Your task to perform on an android device: Check out the best rated electric trimmers on Lowe's Image 0: 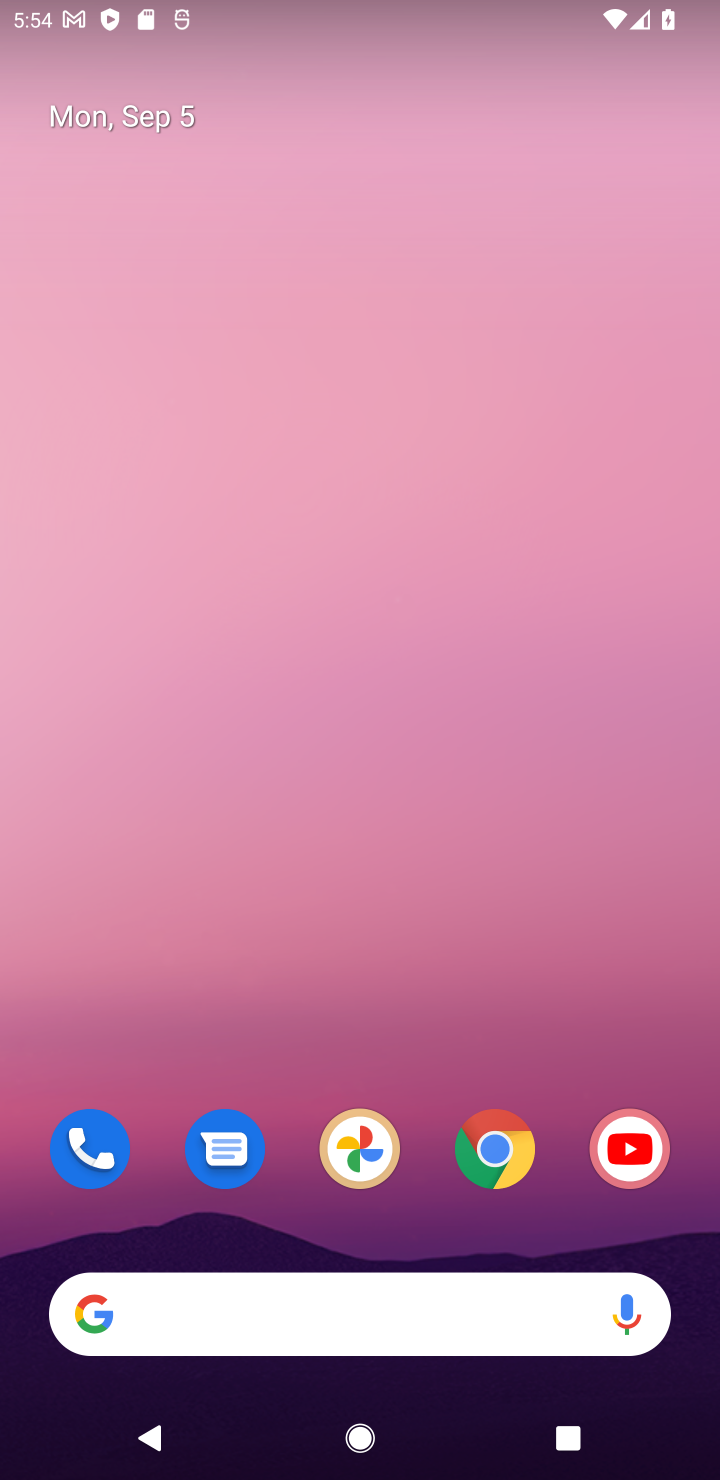
Step 0: click (495, 1154)
Your task to perform on an android device: Check out the best rated electric trimmers on Lowe's Image 1: 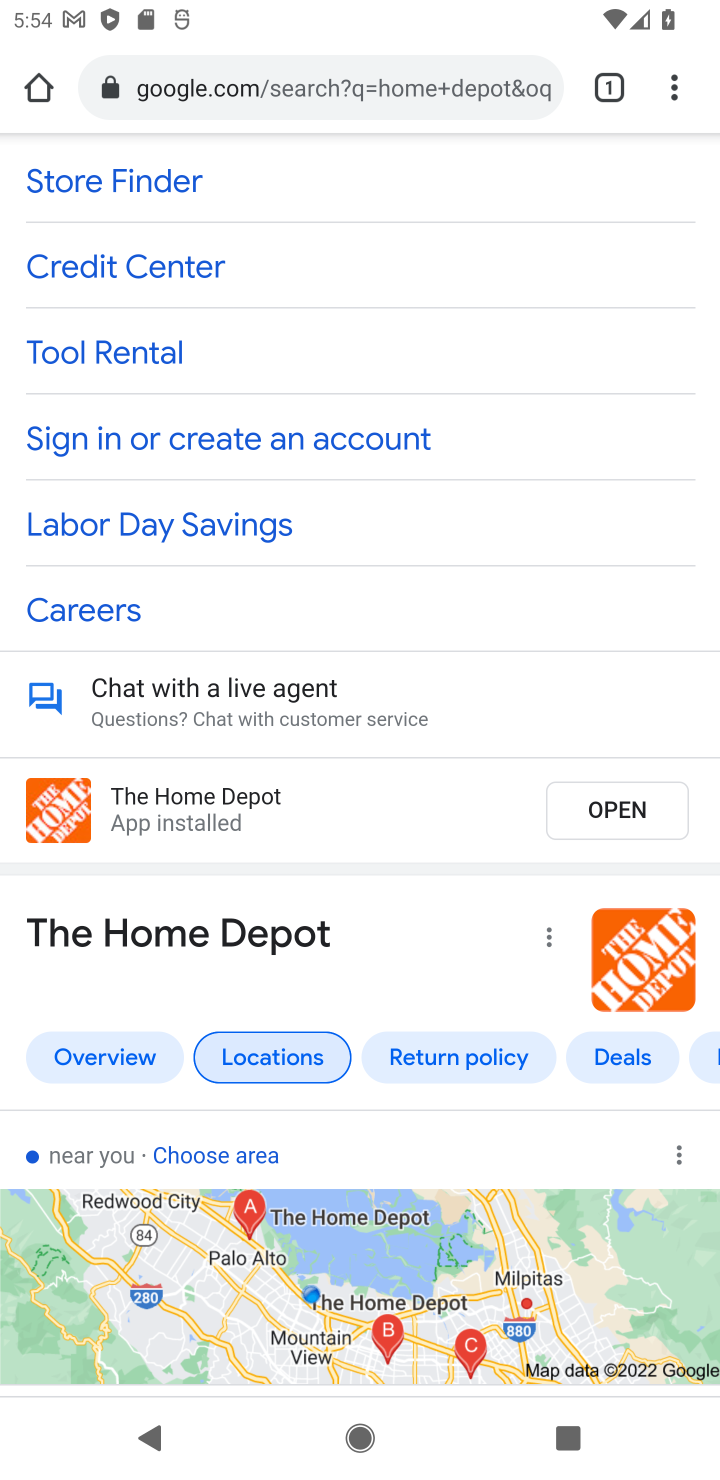
Step 1: click (365, 53)
Your task to perform on an android device: Check out the best rated electric trimmers on Lowe's Image 2: 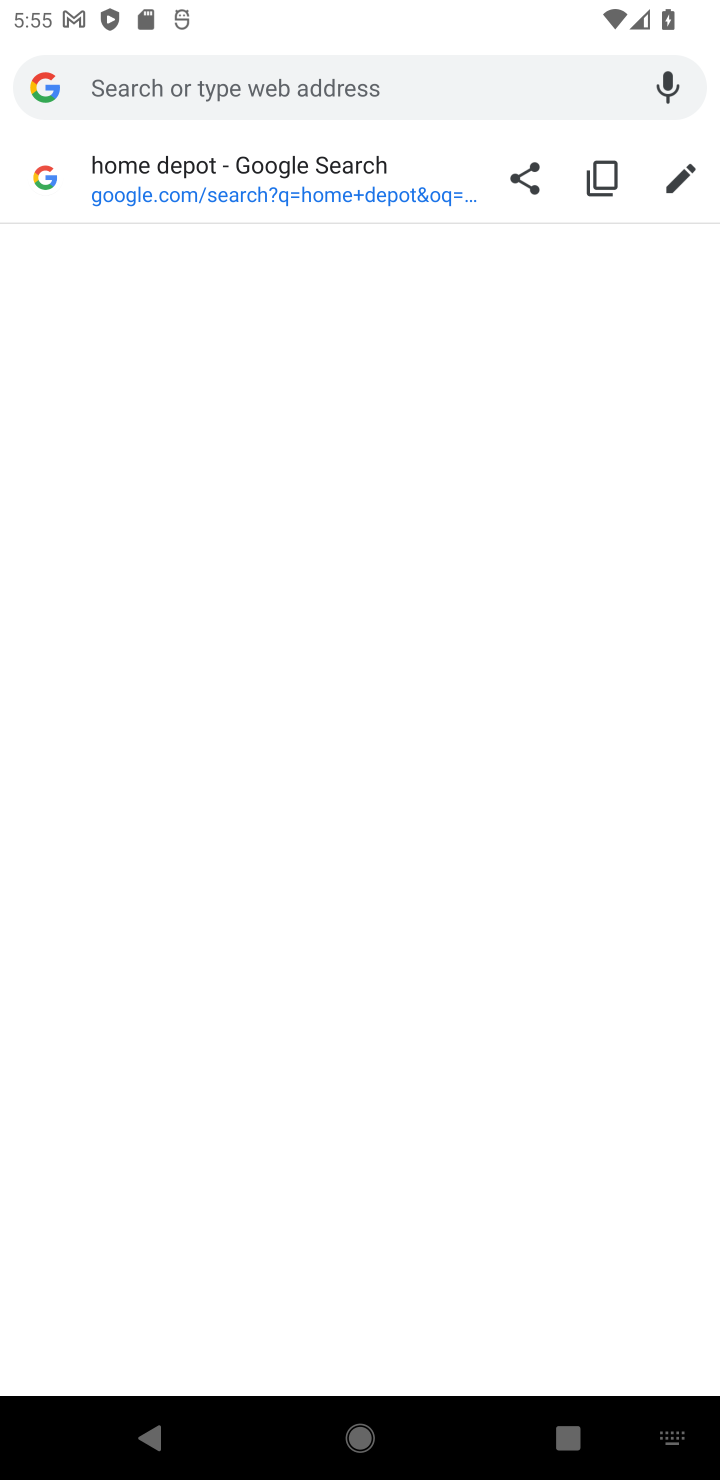
Step 2: type " Lowe's"
Your task to perform on an android device: Check out the best rated electric trimmers on Lowe's Image 3: 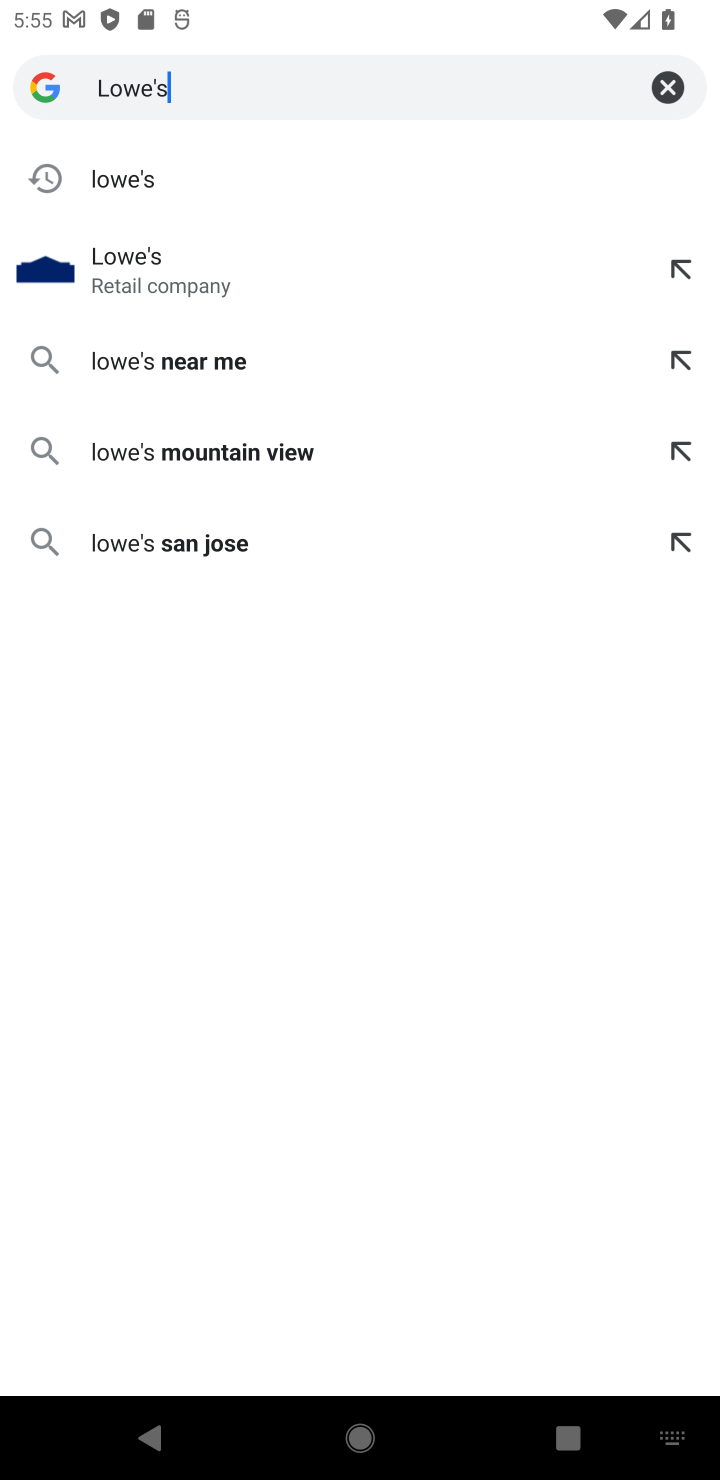
Step 3: click (131, 264)
Your task to perform on an android device: Check out the best rated electric trimmers on Lowe's Image 4: 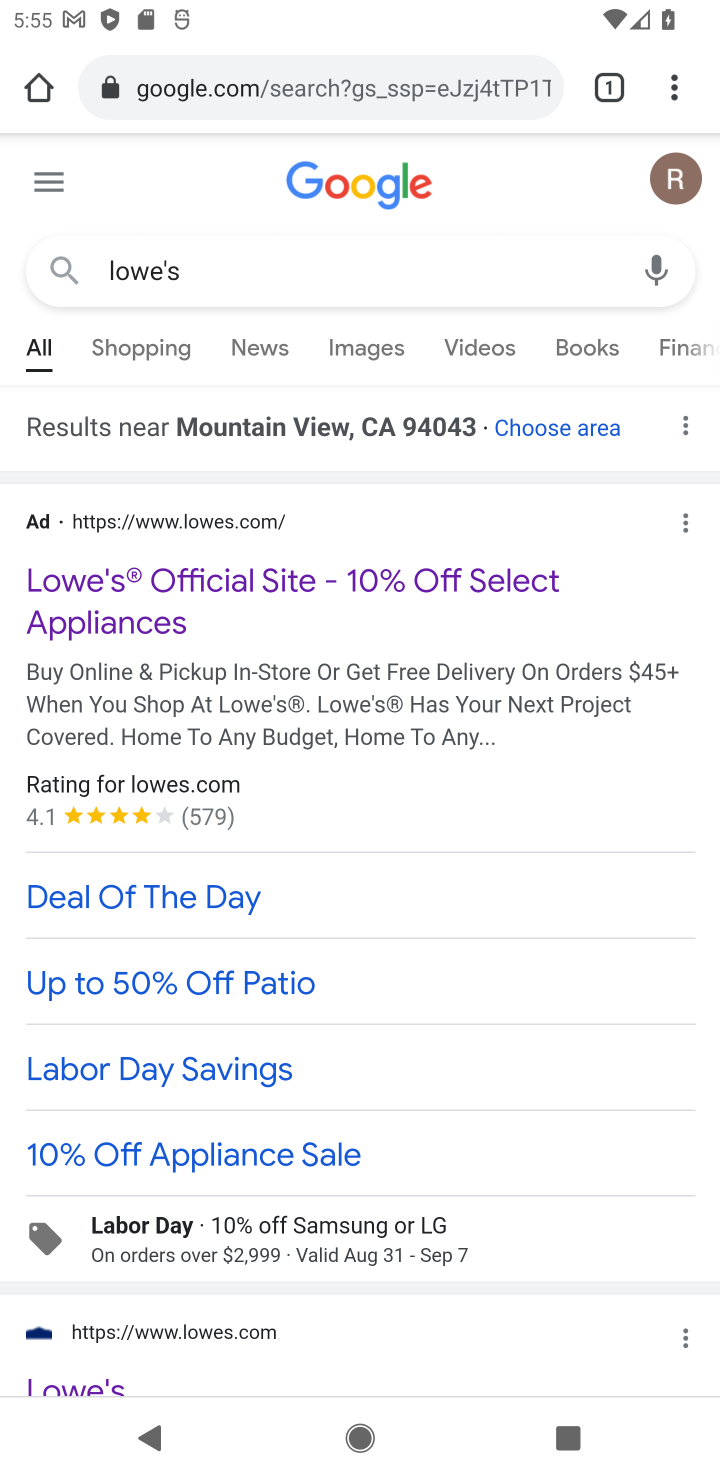
Step 4: click (157, 583)
Your task to perform on an android device: Check out the best rated electric trimmers on Lowe's Image 5: 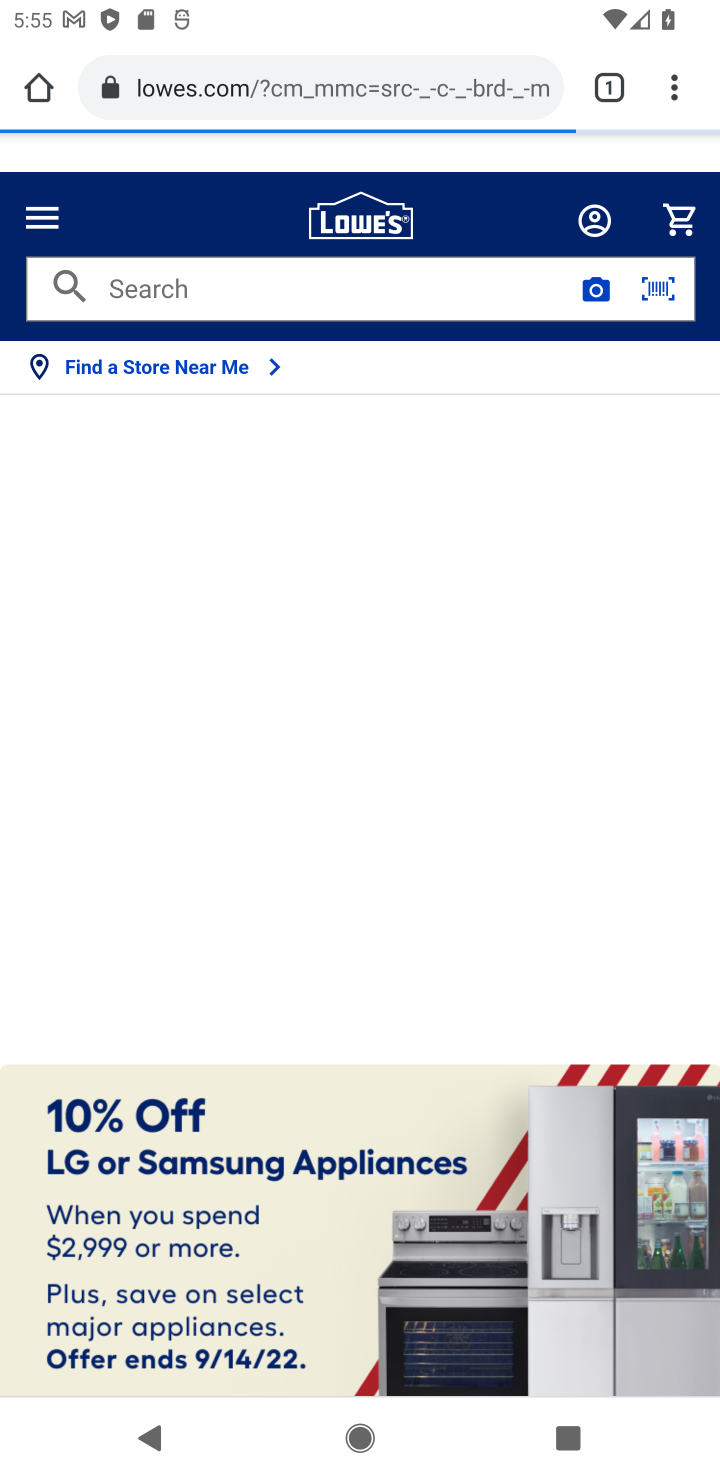
Step 5: click (174, 276)
Your task to perform on an android device: Check out the best rated electric trimmers on Lowe's Image 6: 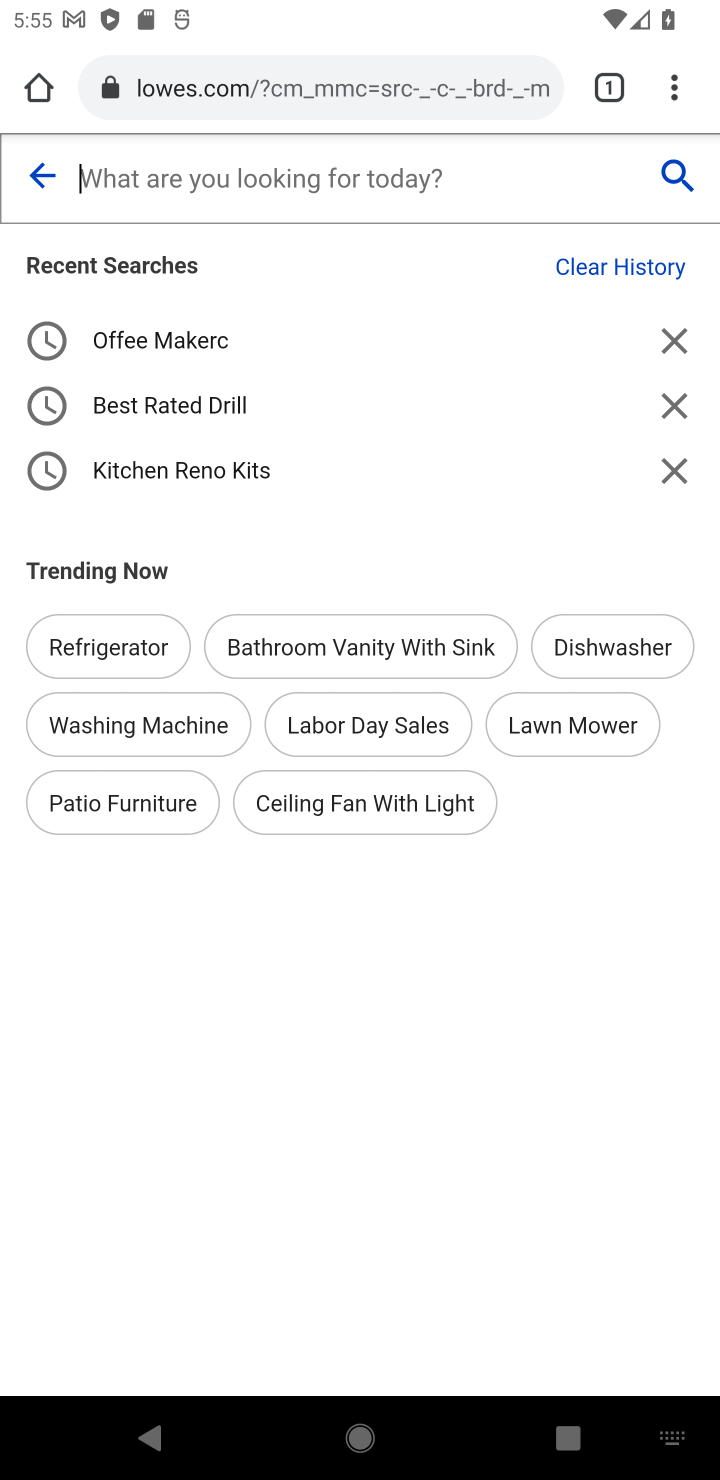
Step 6: type " electric trimmers"
Your task to perform on an android device: Check out the best rated electric trimmers on Lowe's Image 7: 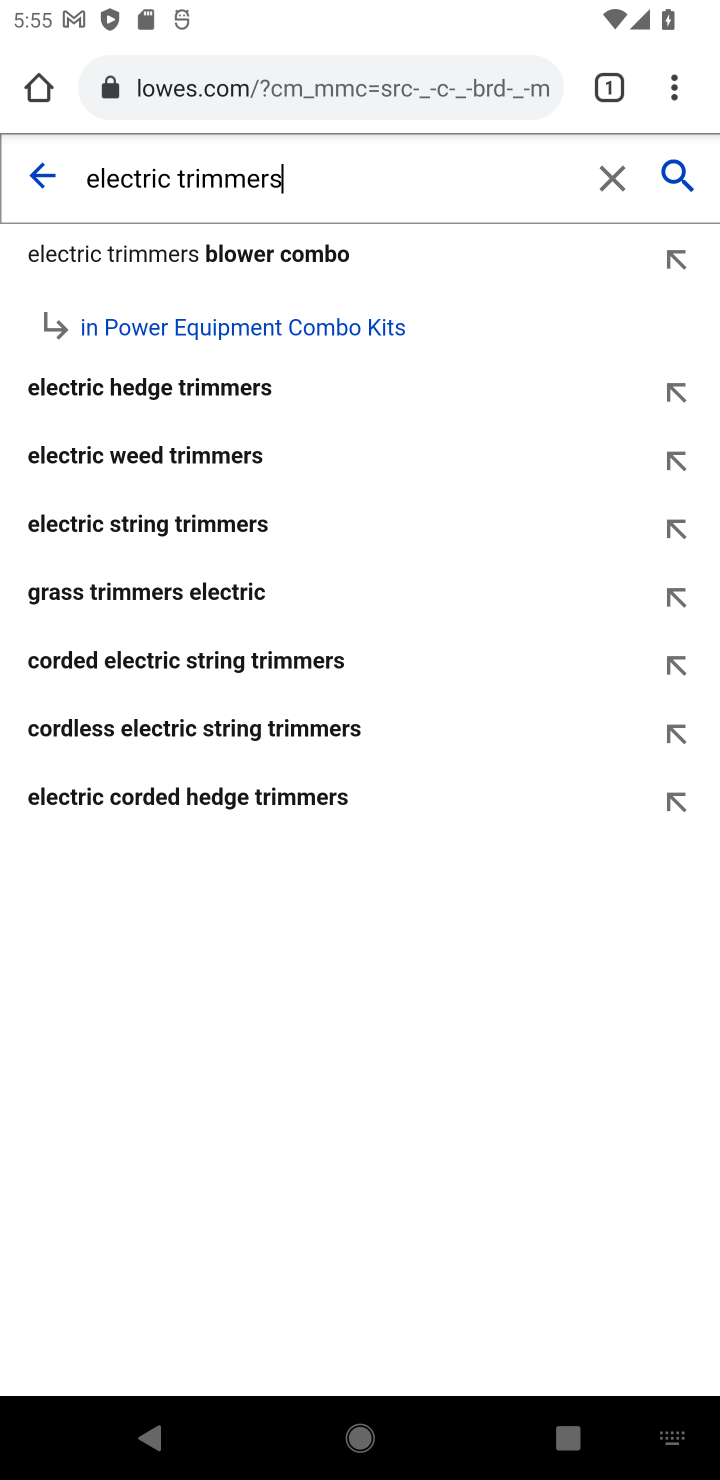
Step 7: click (670, 175)
Your task to perform on an android device: Check out the best rated electric trimmers on Lowe's Image 8: 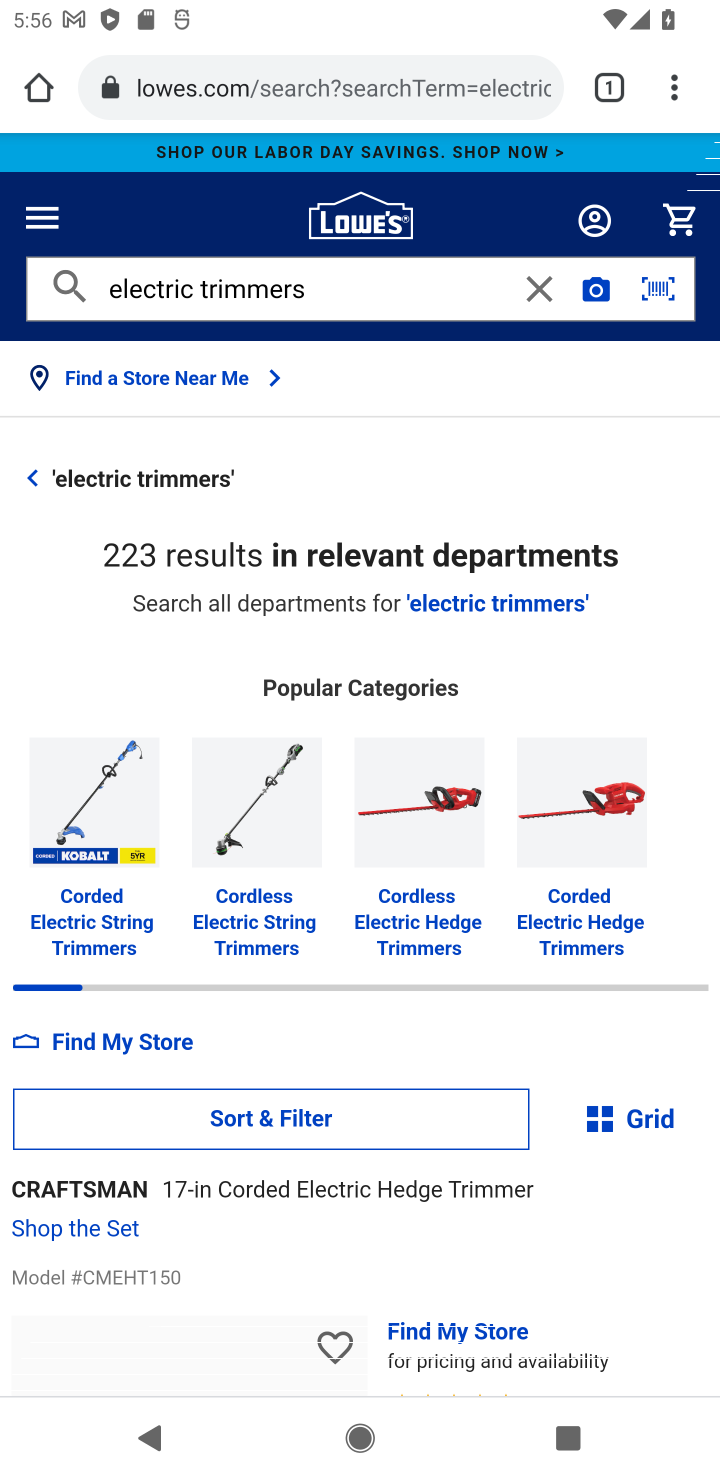
Step 8: click (263, 1118)
Your task to perform on an android device: Check out the best rated electric trimmers on Lowe's Image 9: 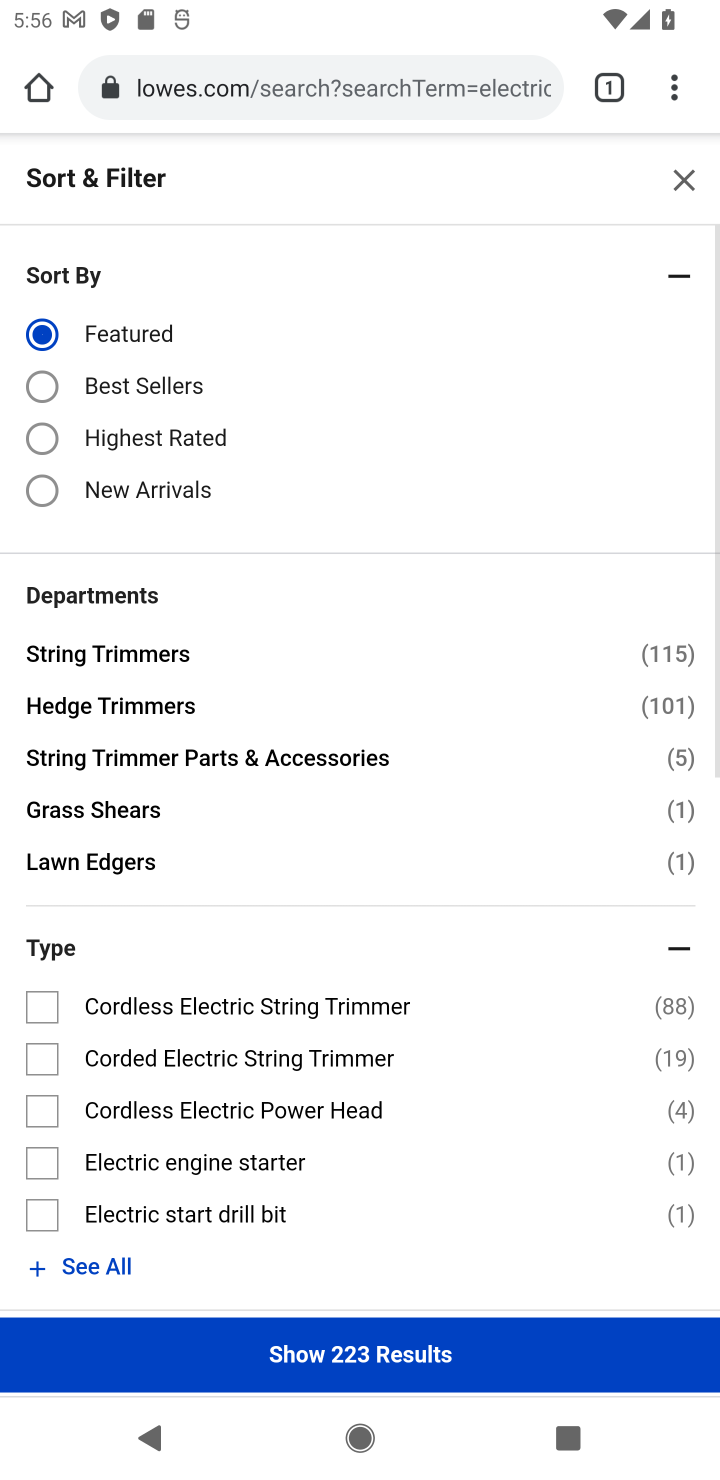
Step 9: click (44, 439)
Your task to perform on an android device: Check out the best rated electric trimmers on Lowe's Image 10: 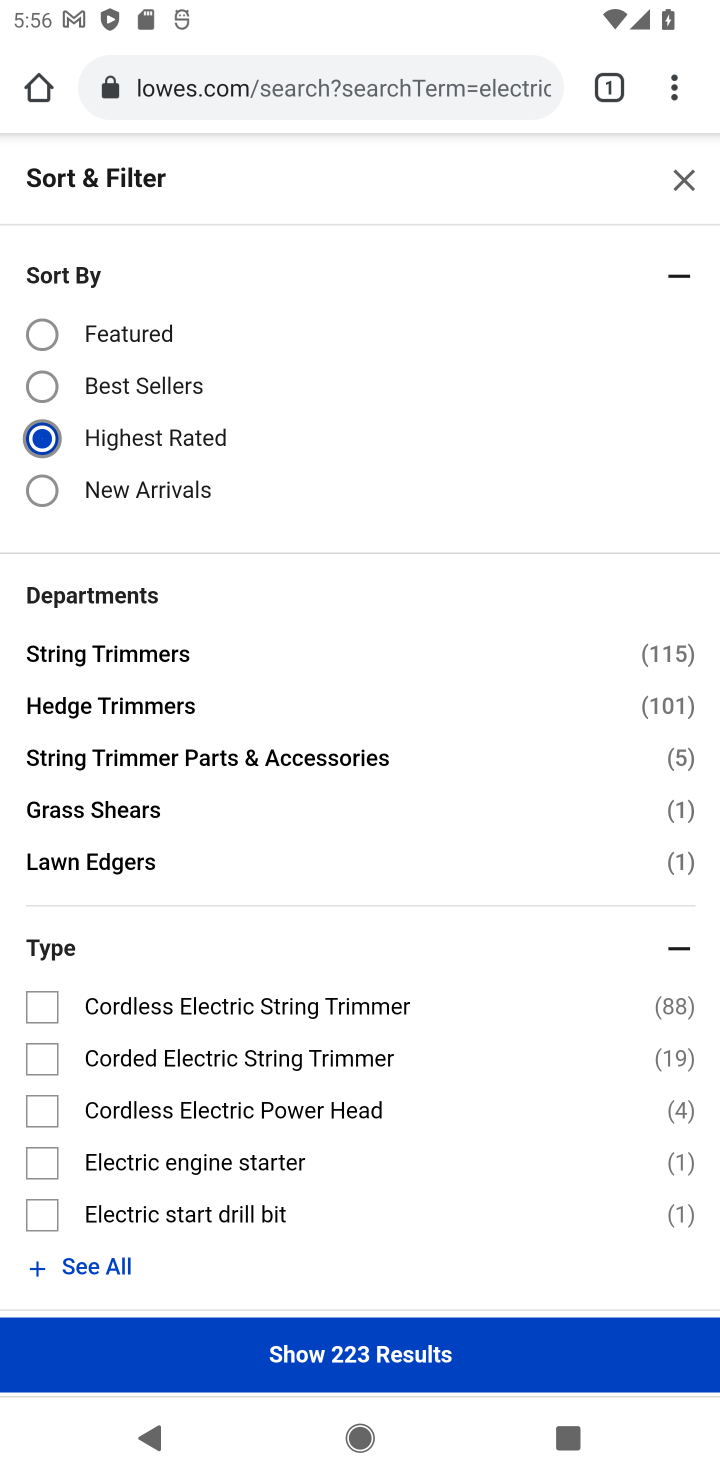
Step 10: click (344, 1348)
Your task to perform on an android device: Check out the best rated electric trimmers on Lowe's Image 11: 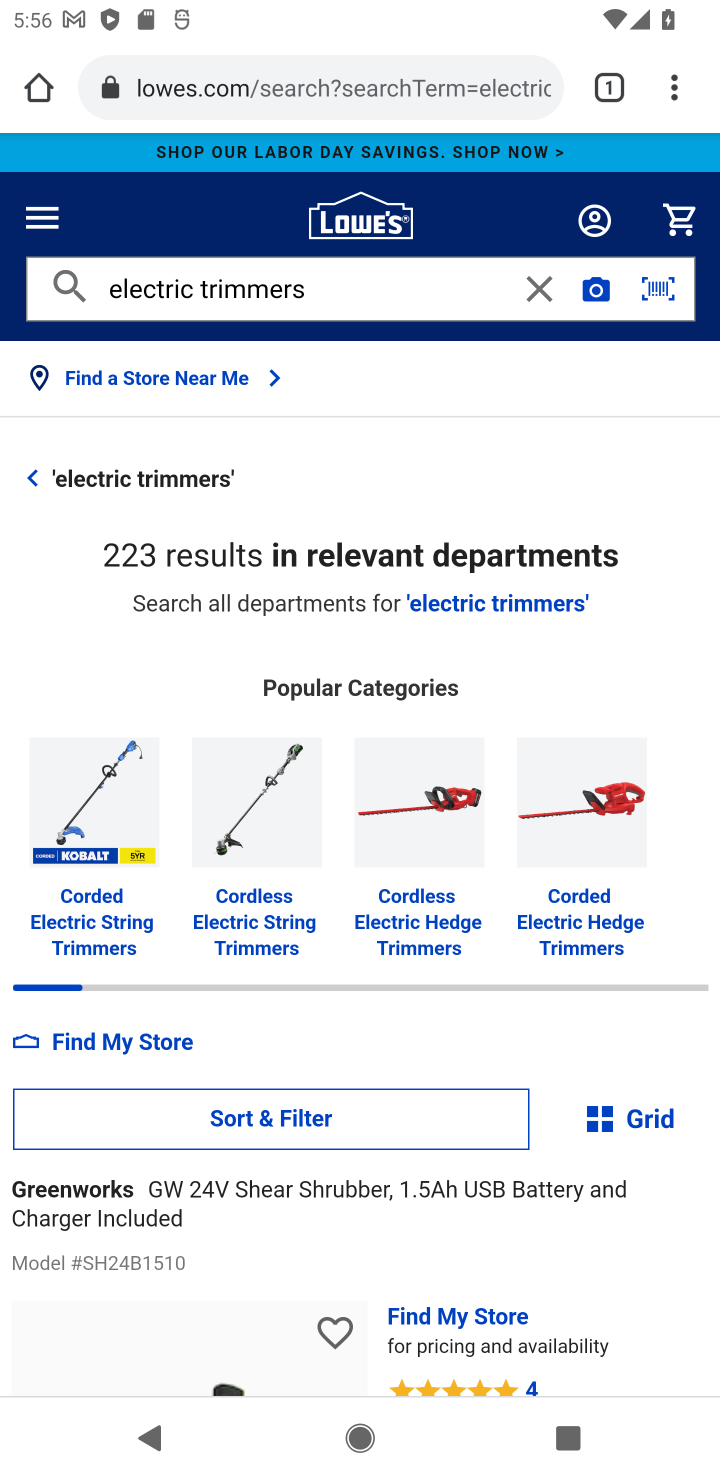
Step 11: drag from (434, 399) to (421, 327)
Your task to perform on an android device: Check out the best rated electric trimmers on Lowe's Image 12: 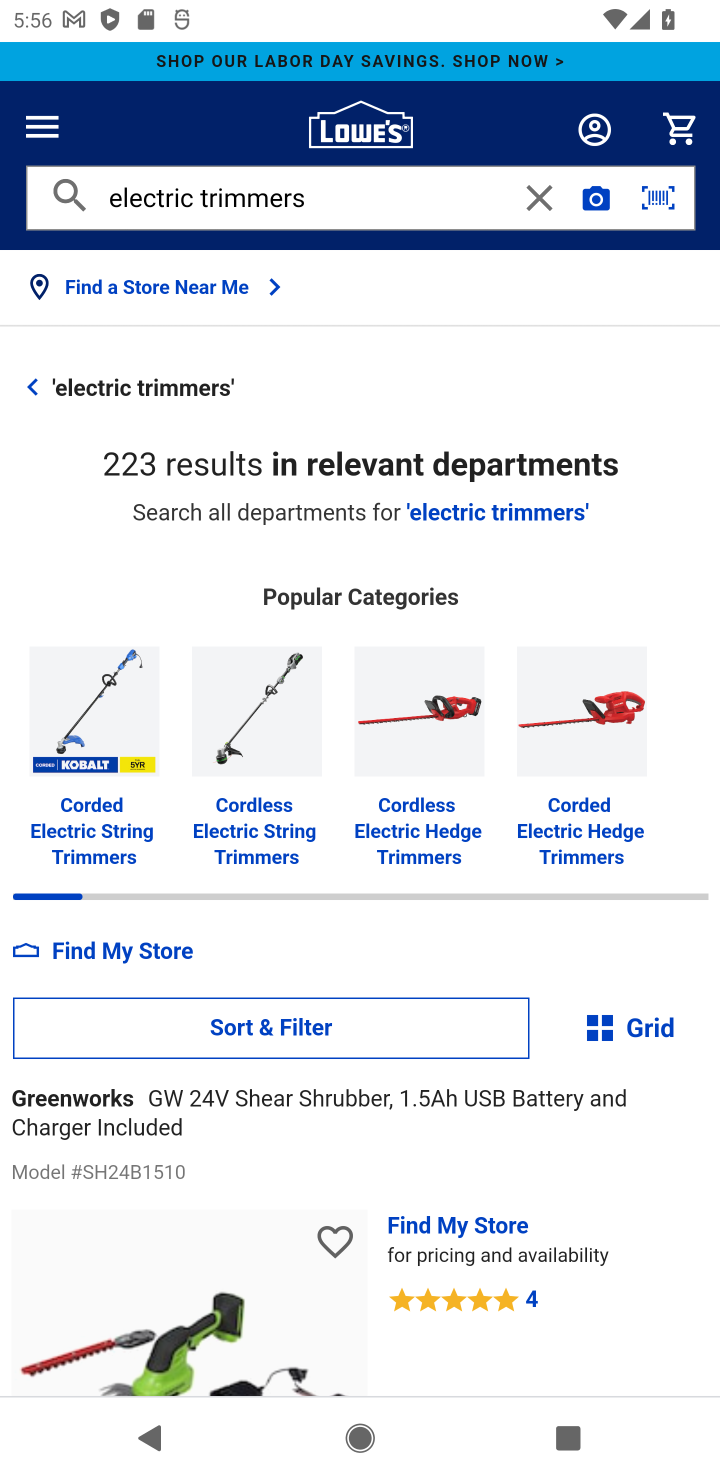
Step 12: drag from (352, 1178) to (369, 376)
Your task to perform on an android device: Check out the best rated electric trimmers on Lowe's Image 13: 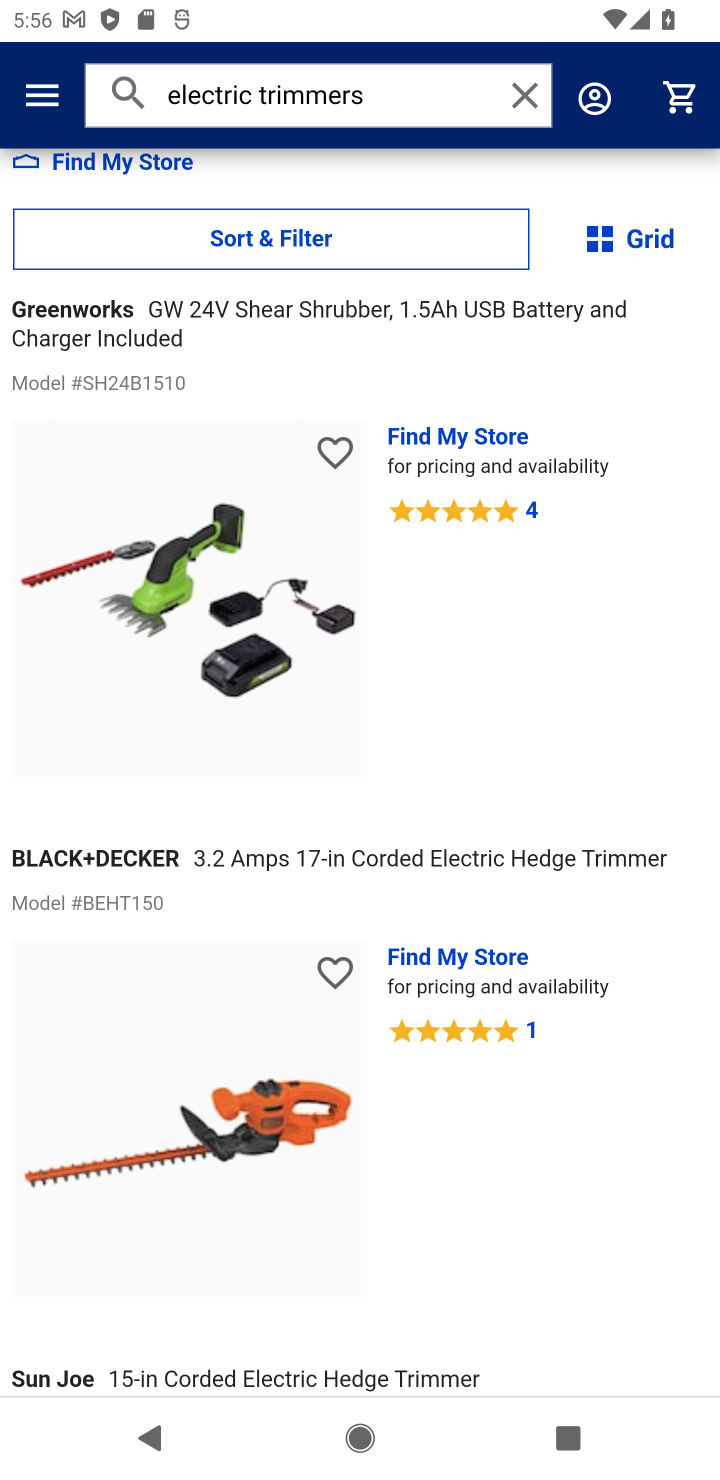
Step 13: drag from (403, 909) to (389, 579)
Your task to perform on an android device: Check out the best rated electric trimmers on Lowe's Image 14: 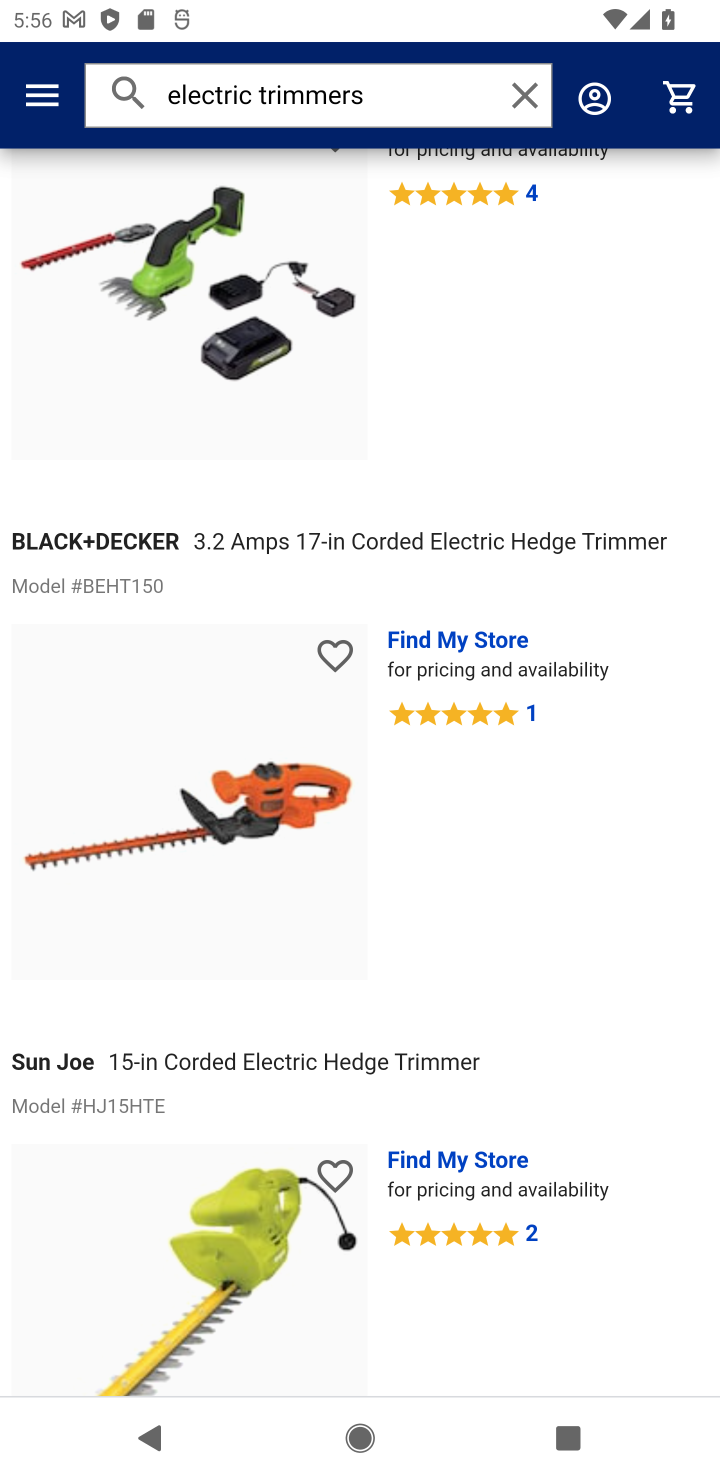
Step 14: drag from (369, 1355) to (363, 681)
Your task to perform on an android device: Check out the best rated electric trimmers on Lowe's Image 15: 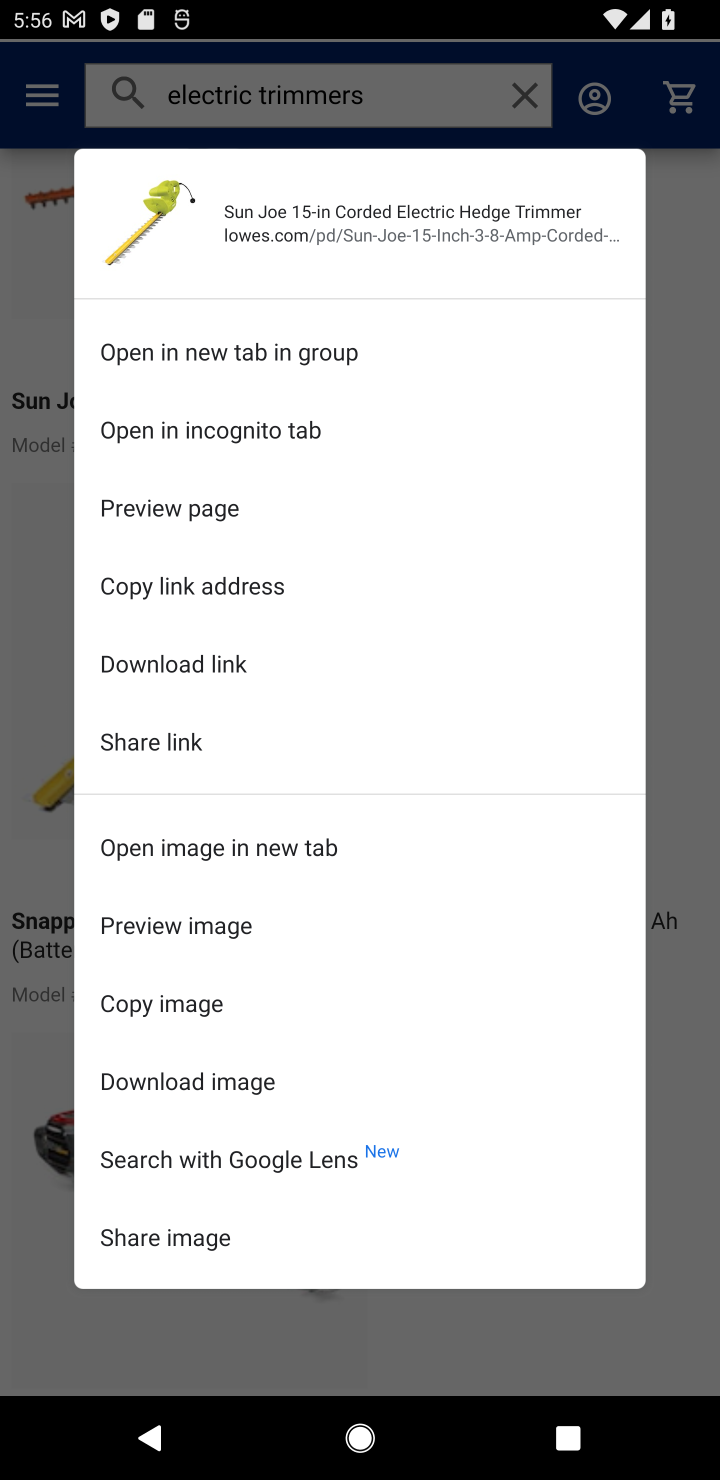
Step 15: click (693, 1204)
Your task to perform on an android device: Check out the best rated electric trimmers on Lowe's Image 16: 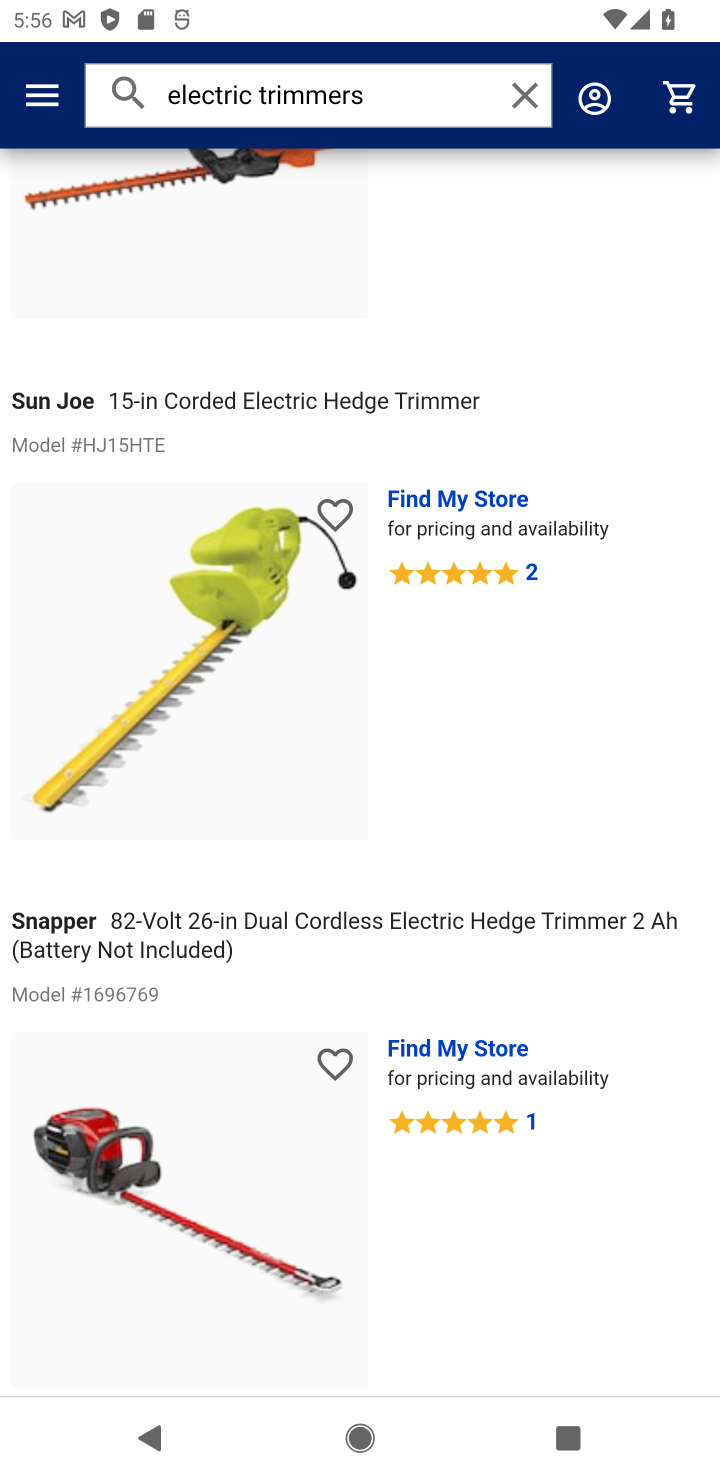
Step 16: task complete